Your task to perform on an android device: turn on notifications settings in the gmail app Image 0: 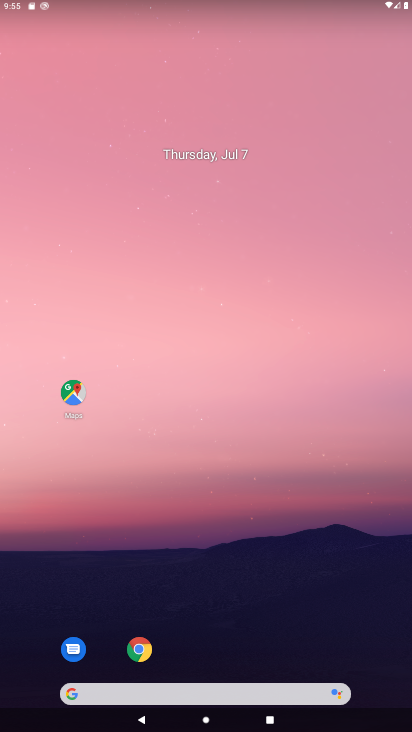
Step 0: drag from (351, 619) to (304, 262)
Your task to perform on an android device: turn on notifications settings in the gmail app Image 1: 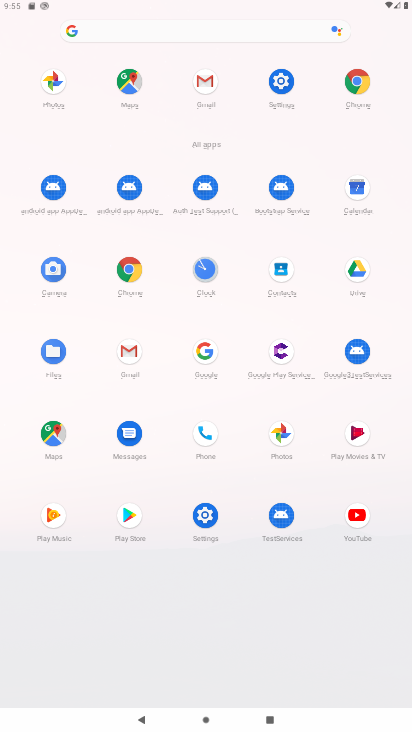
Step 1: click (209, 77)
Your task to perform on an android device: turn on notifications settings in the gmail app Image 2: 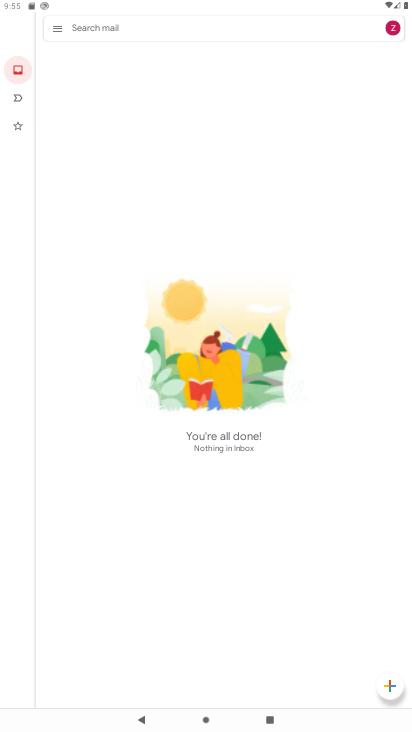
Step 2: click (59, 30)
Your task to perform on an android device: turn on notifications settings in the gmail app Image 3: 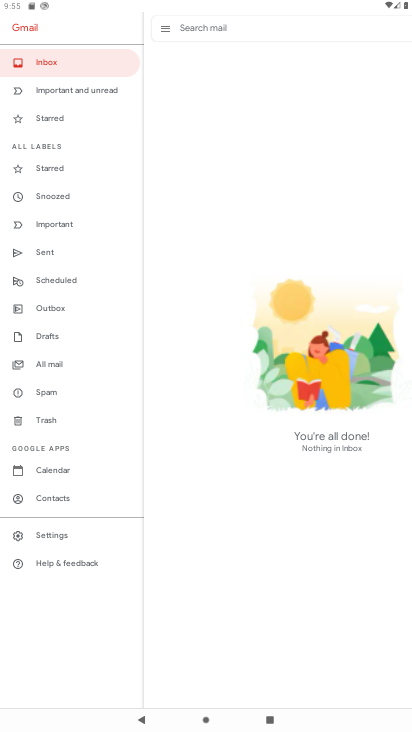
Step 3: click (80, 543)
Your task to perform on an android device: turn on notifications settings in the gmail app Image 4: 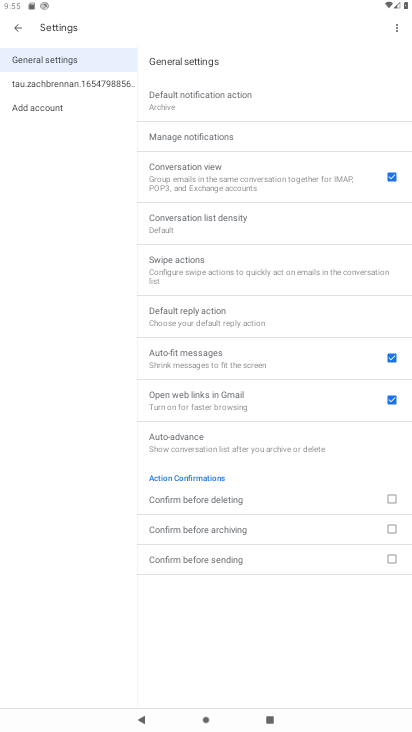
Step 4: click (177, 141)
Your task to perform on an android device: turn on notifications settings in the gmail app Image 5: 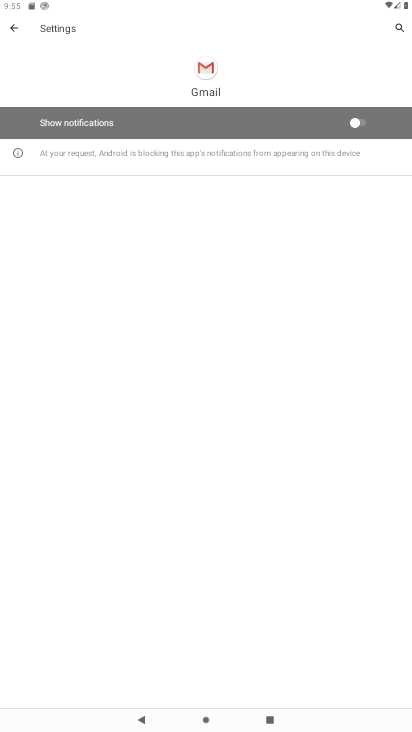
Step 5: click (362, 115)
Your task to perform on an android device: turn on notifications settings in the gmail app Image 6: 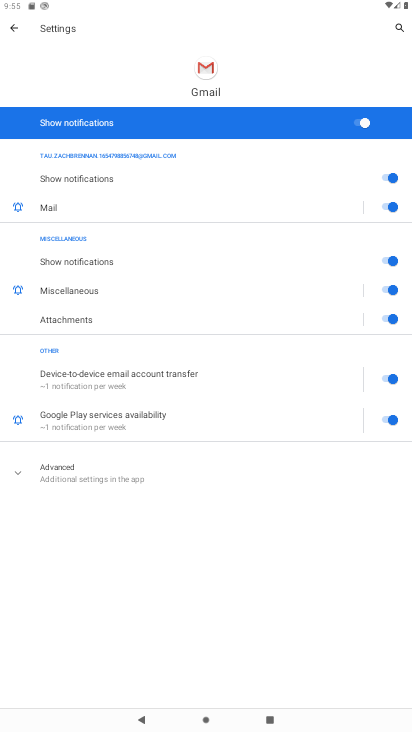
Step 6: task complete